Your task to perform on an android device: all mails in gmail Image 0: 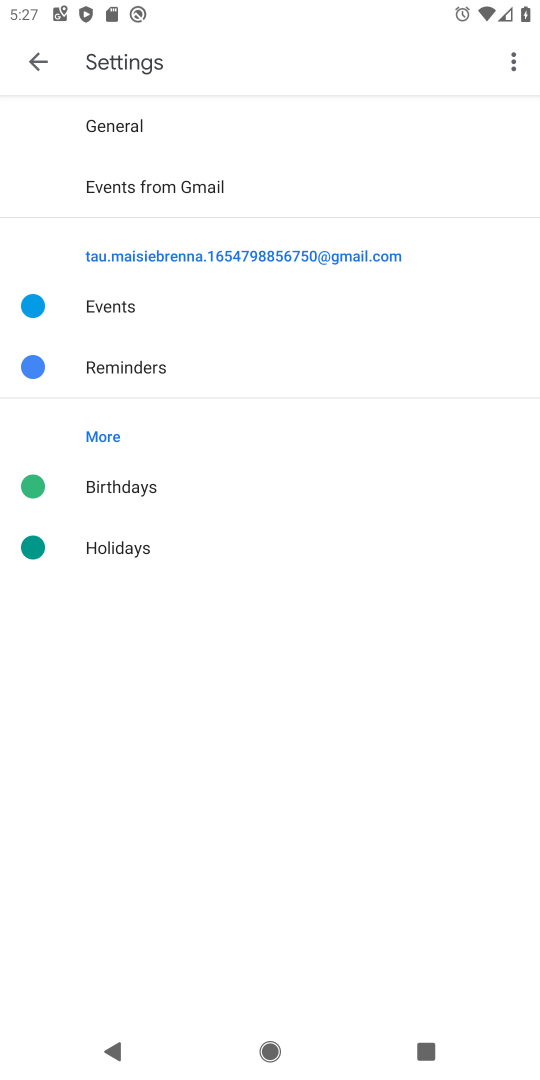
Step 0: press home button
Your task to perform on an android device: all mails in gmail Image 1: 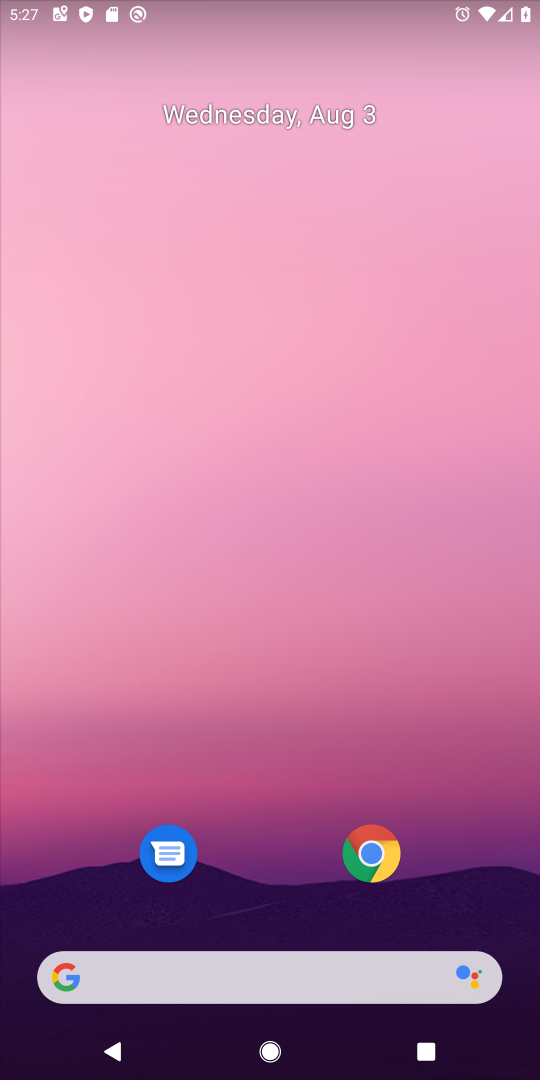
Step 1: drag from (265, 867) to (239, 290)
Your task to perform on an android device: all mails in gmail Image 2: 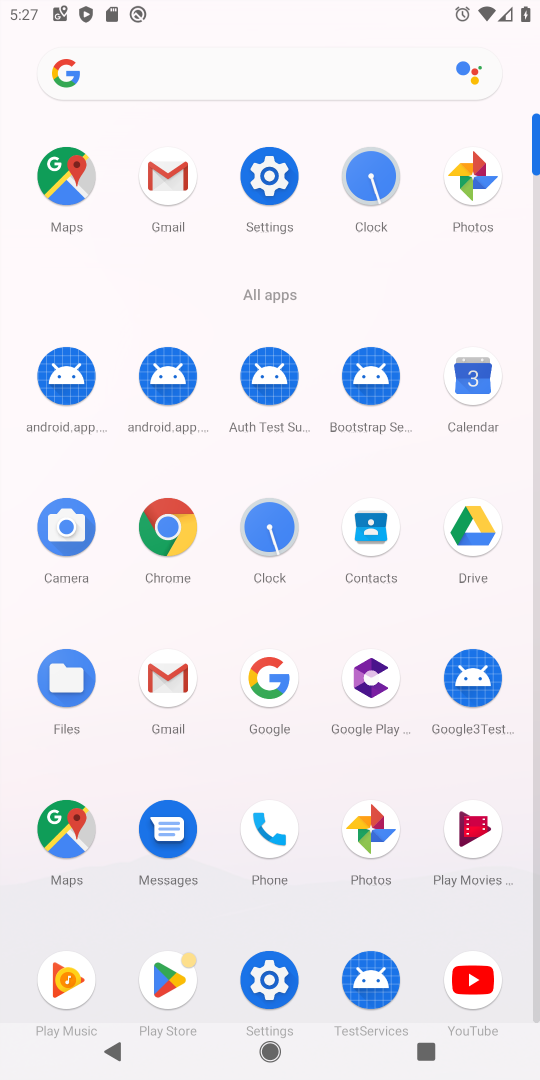
Step 2: click (176, 667)
Your task to perform on an android device: all mails in gmail Image 3: 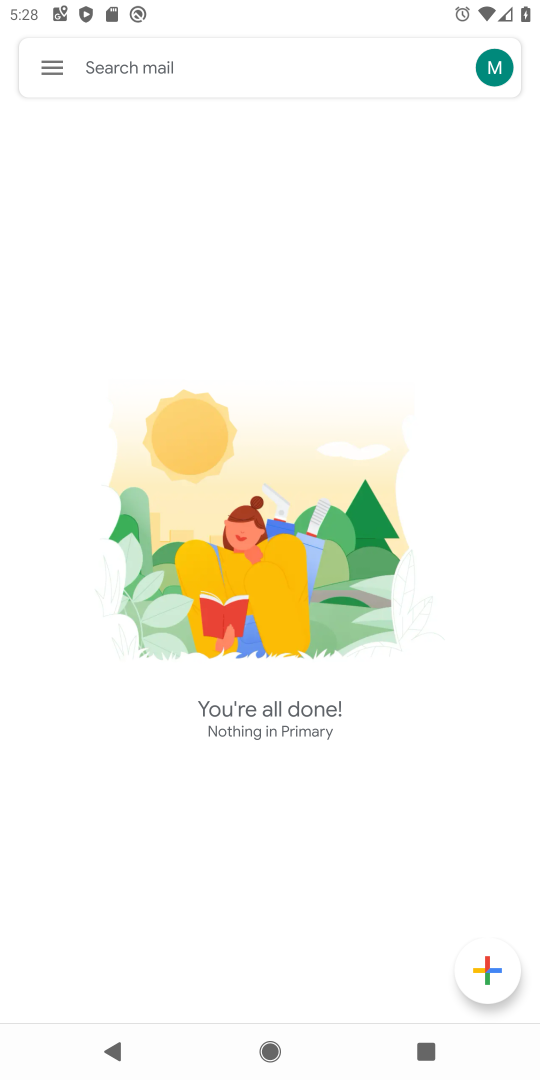
Step 3: click (59, 76)
Your task to perform on an android device: all mails in gmail Image 4: 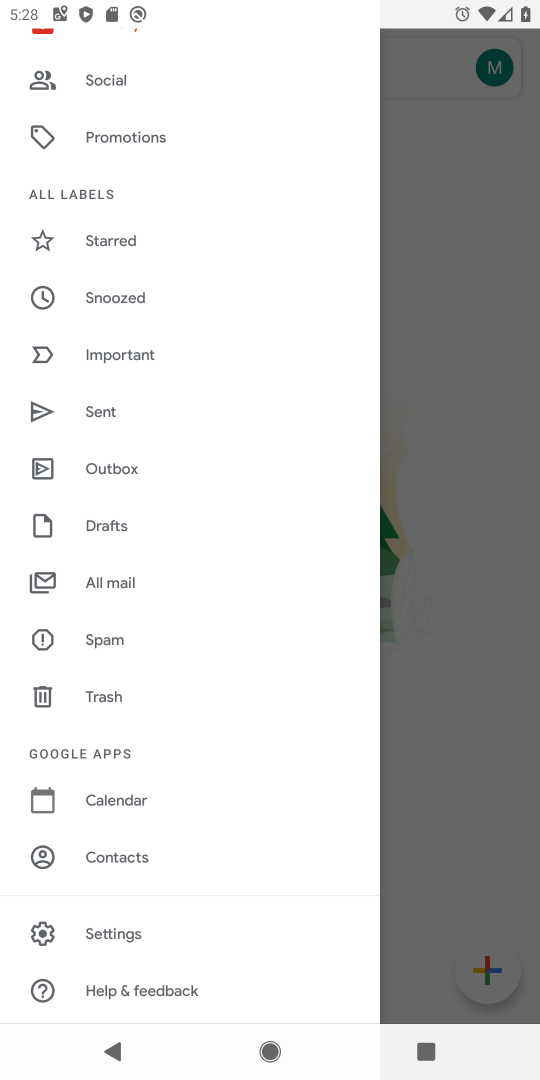
Step 4: click (77, 578)
Your task to perform on an android device: all mails in gmail Image 5: 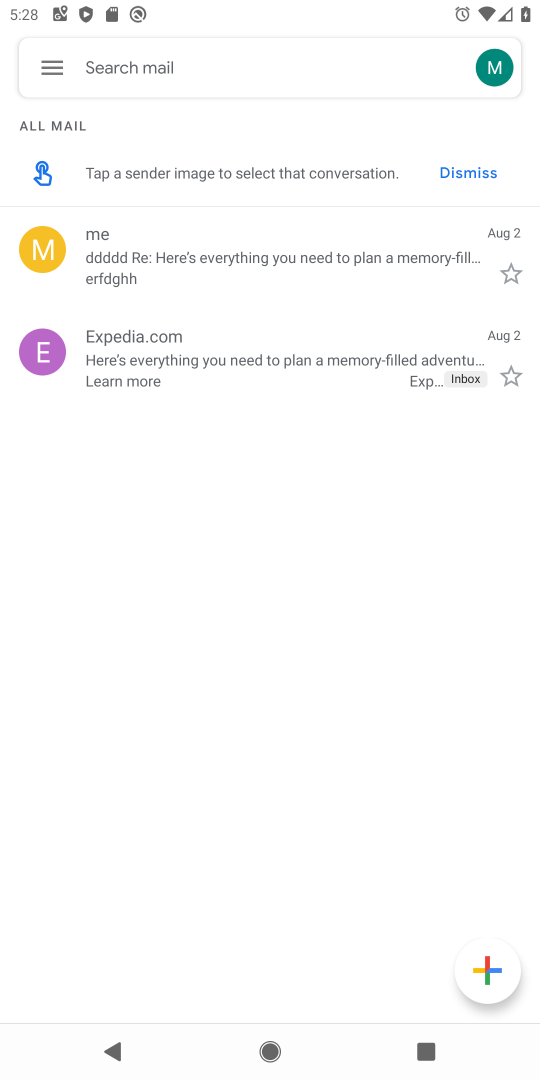
Step 5: task complete